Your task to perform on an android device: set the timer Image 0: 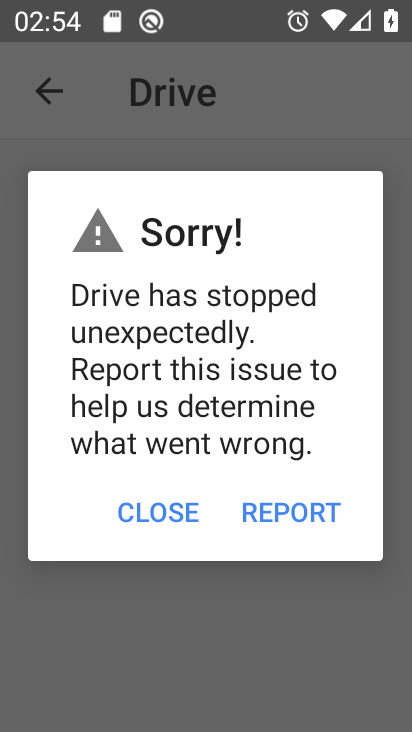
Step 0: press home button
Your task to perform on an android device: set the timer Image 1: 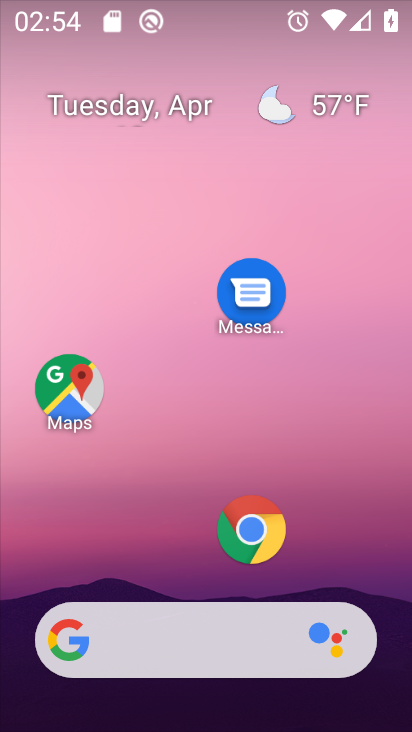
Step 1: drag from (178, 530) to (173, 190)
Your task to perform on an android device: set the timer Image 2: 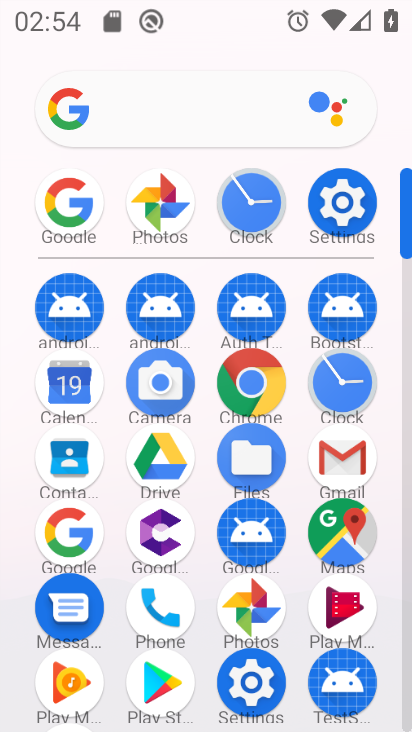
Step 2: click (249, 206)
Your task to perform on an android device: set the timer Image 3: 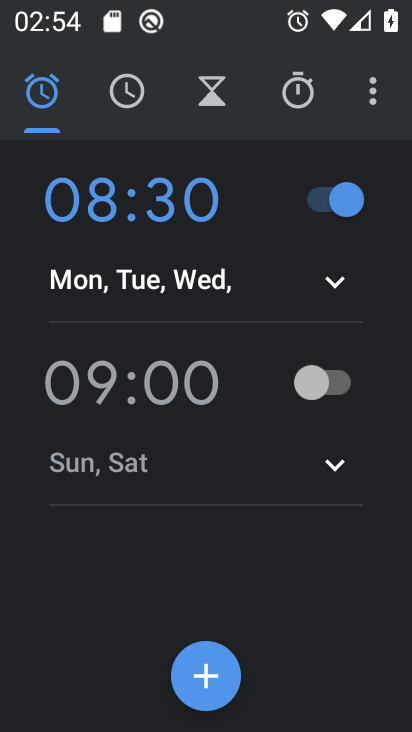
Step 3: click (209, 102)
Your task to perform on an android device: set the timer Image 4: 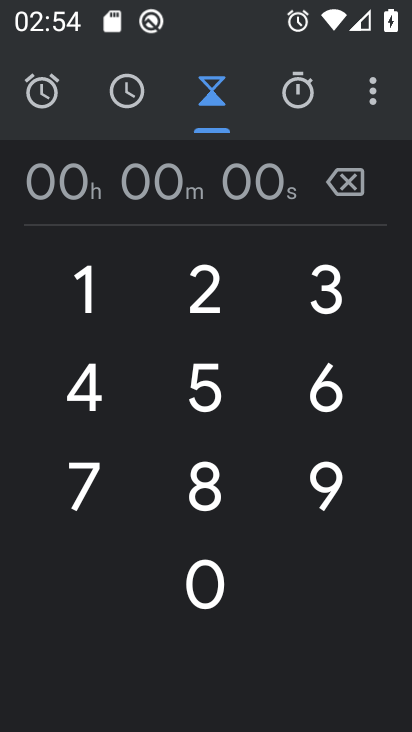
Step 4: click (220, 277)
Your task to perform on an android device: set the timer Image 5: 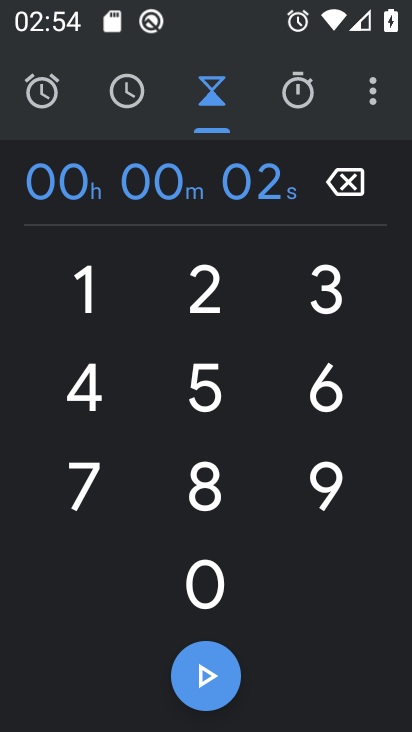
Step 5: click (220, 277)
Your task to perform on an android device: set the timer Image 6: 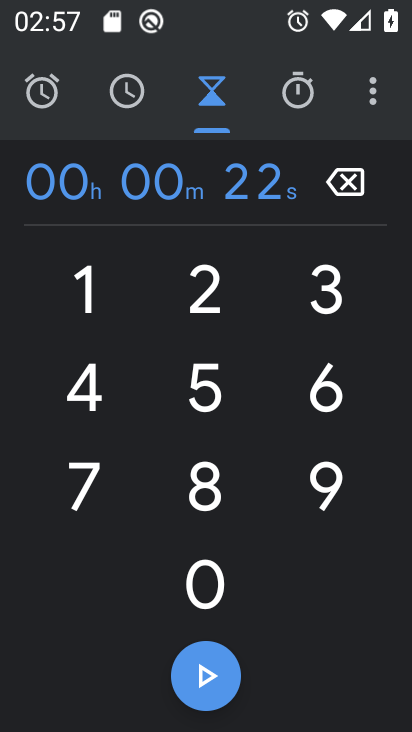
Step 6: task complete